Your task to perform on an android device: Open ESPN.com Image 0: 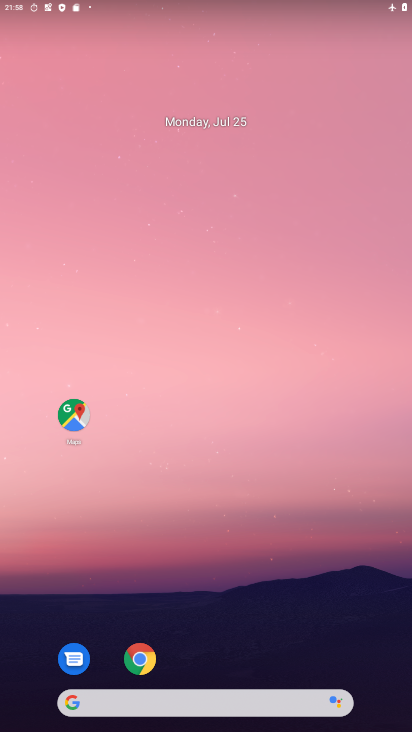
Step 0: click (151, 669)
Your task to perform on an android device: Open ESPN.com Image 1: 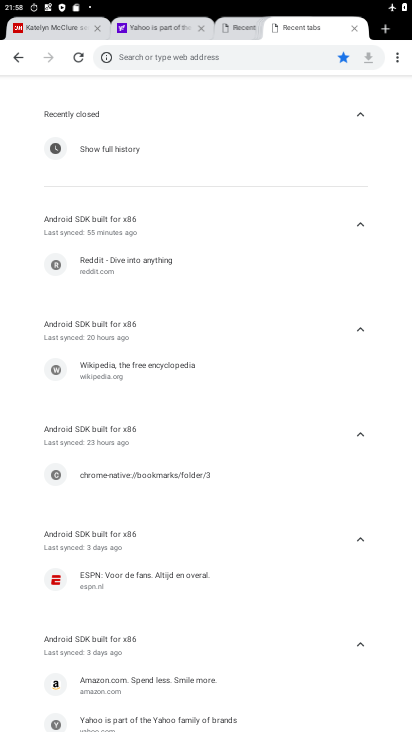
Step 1: click (381, 33)
Your task to perform on an android device: Open ESPN.com Image 2: 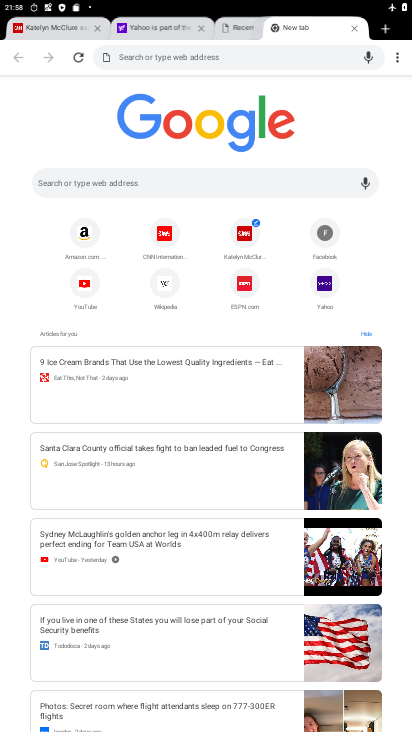
Step 2: click (381, 33)
Your task to perform on an android device: Open ESPN.com Image 3: 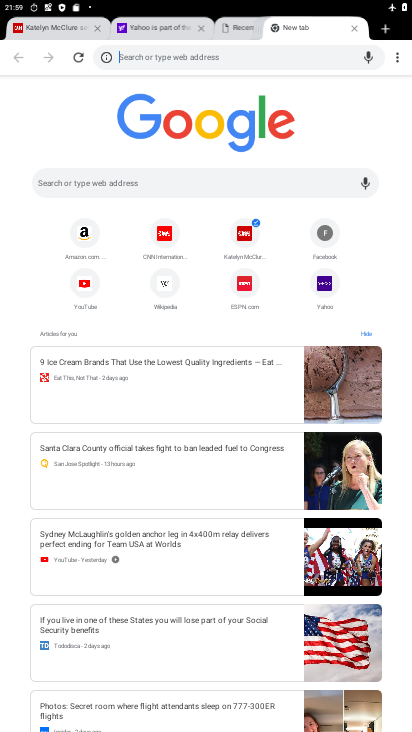
Step 3: click (243, 293)
Your task to perform on an android device: Open ESPN.com Image 4: 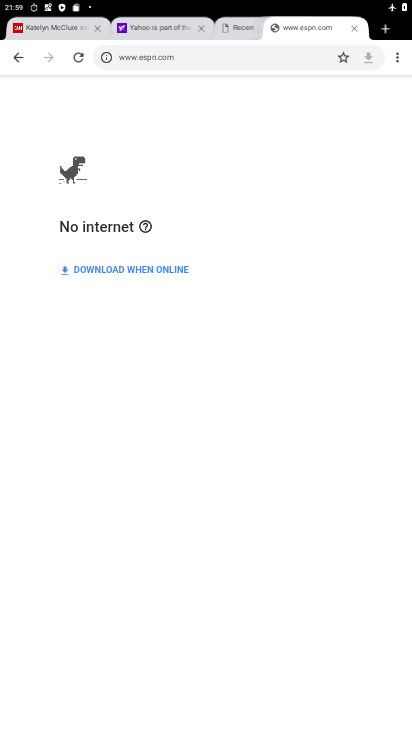
Step 4: task complete